Your task to perform on an android device: What's the weather going to be this weekend? Image 0: 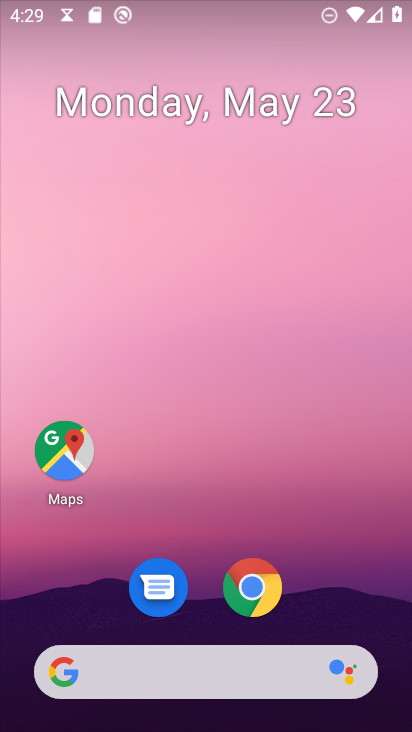
Step 0: click (200, 678)
Your task to perform on an android device: What's the weather going to be this weekend? Image 1: 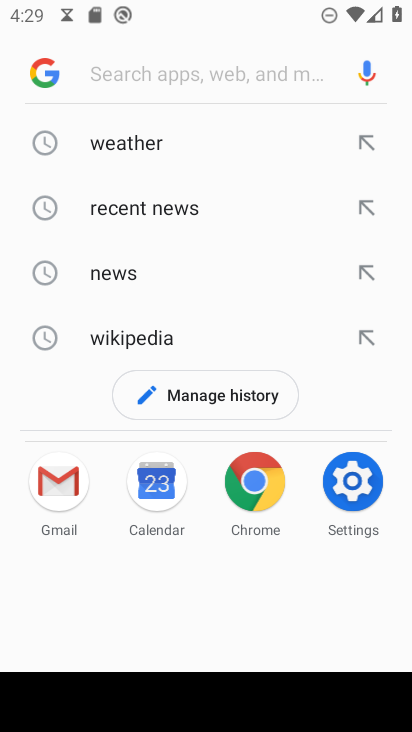
Step 1: click (154, 136)
Your task to perform on an android device: What's the weather going to be this weekend? Image 2: 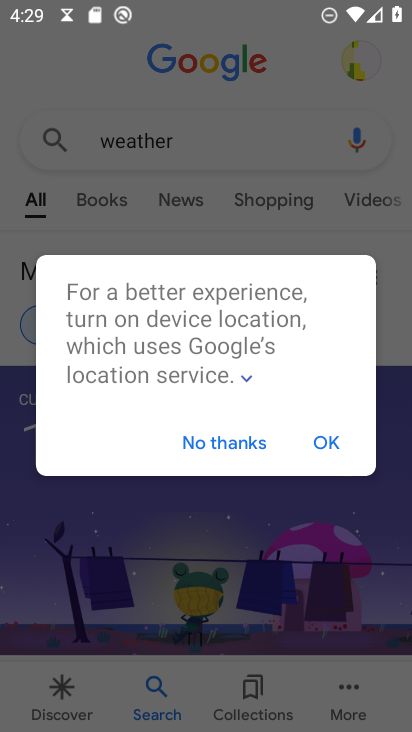
Step 2: click (320, 440)
Your task to perform on an android device: What's the weather going to be this weekend? Image 3: 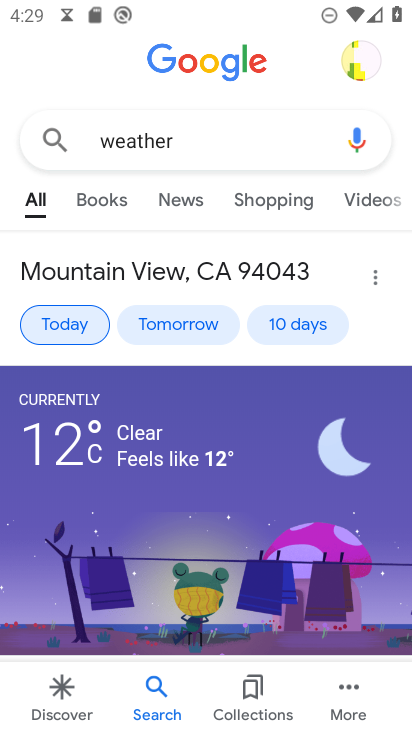
Step 3: task complete